Your task to perform on an android device: Turn on the flashlight Image 0: 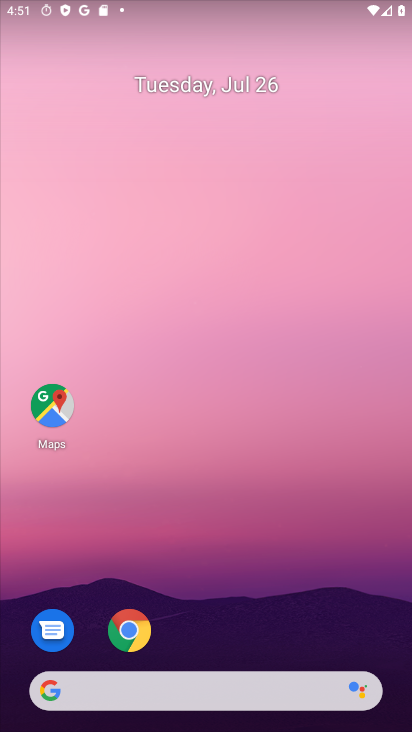
Step 0: drag from (315, 591) to (214, 100)
Your task to perform on an android device: Turn on the flashlight Image 1: 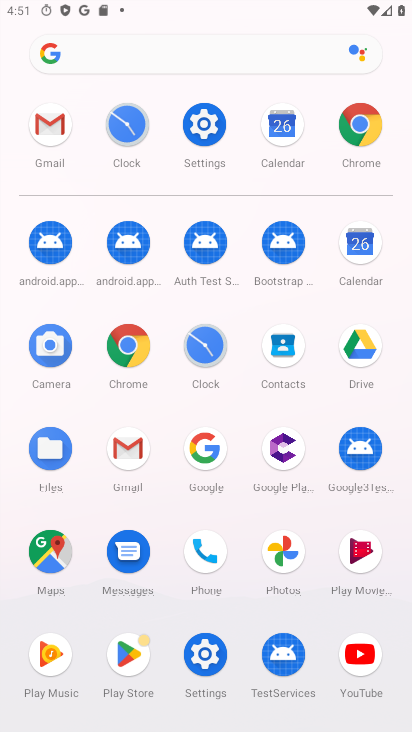
Step 1: click (202, 118)
Your task to perform on an android device: Turn on the flashlight Image 2: 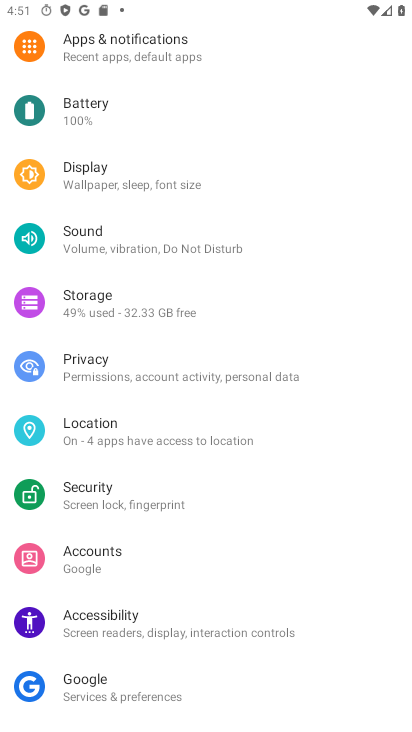
Step 2: click (125, 188)
Your task to perform on an android device: Turn on the flashlight Image 3: 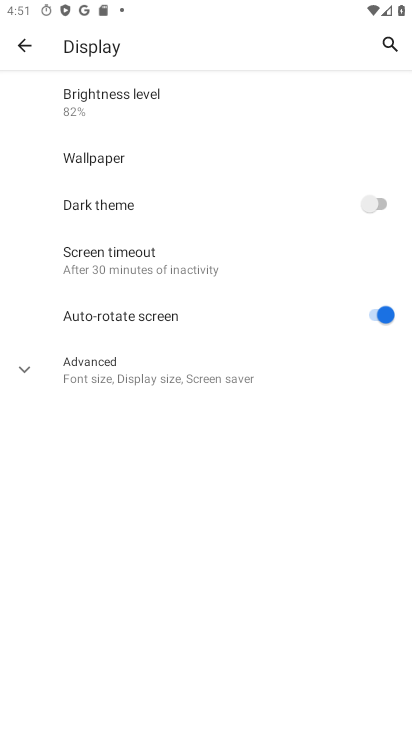
Step 3: task complete